Your task to perform on an android device: Open Chrome and go to settings Image 0: 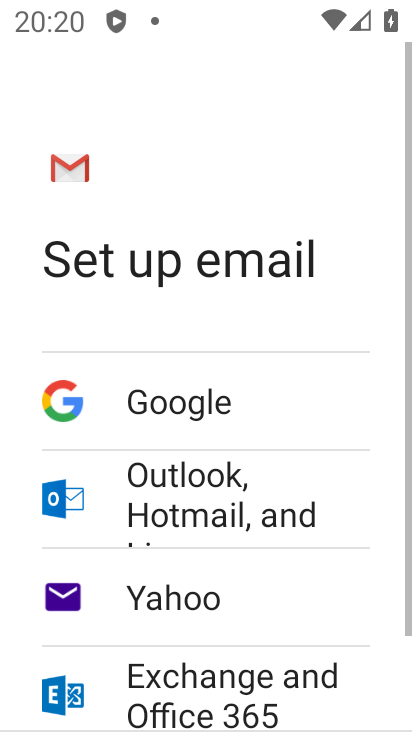
Step 0: press home button
Your task to perform on an android device: Open Chrome and go to settings Image 1: 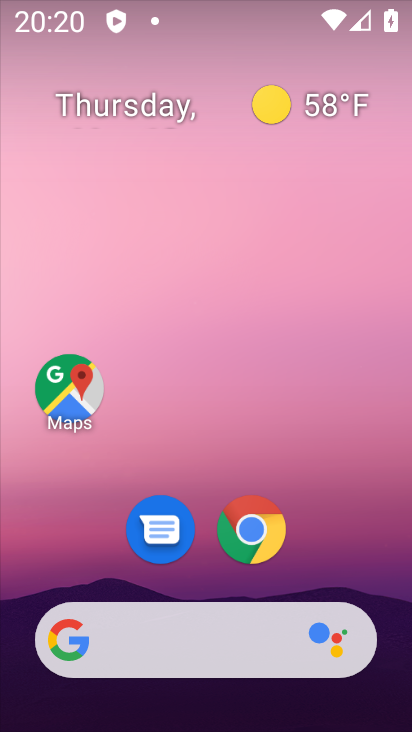
Step 1: click (259, 530)
Your task to perform on an android device: Open Chrome and go to settings Image 2: 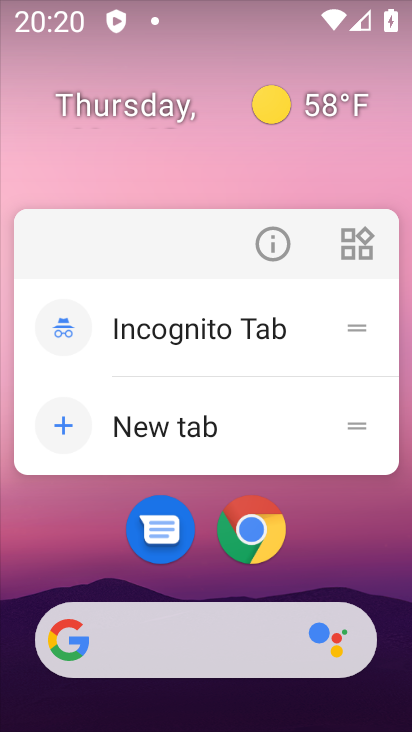
Step 2: click (258, 529)
Your task to perform on an android device: Open Chrome and go to settings Image 3: 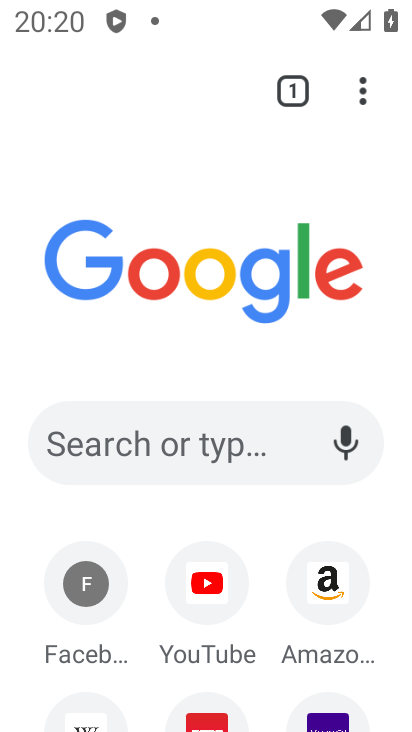
Step 3: click (354, 86)
Your task to perform on an android device: Open Chrome and go to settings Image 4: 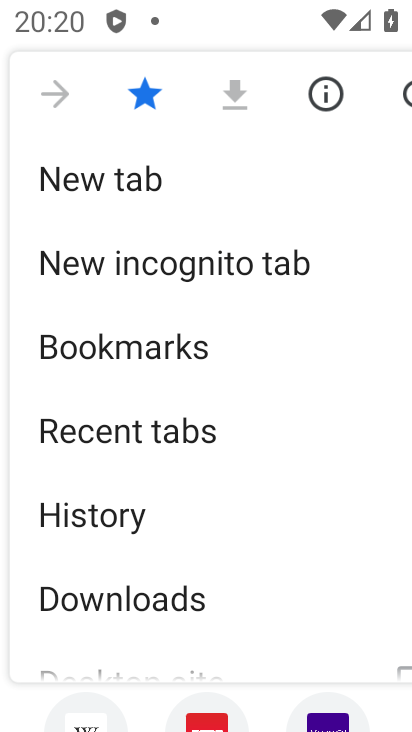
Step 4: drag from (152, 589) to (244, 0)
Your task to perform on an android device: Open Chrome and go to settings Image 5: 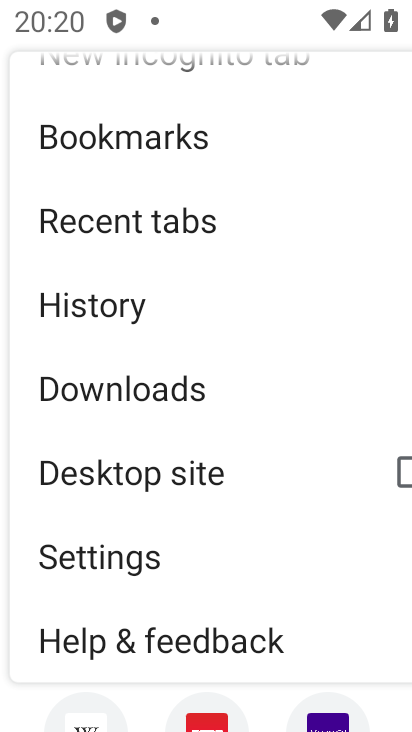
Step 5: click (145, 569)
Your task to perform on an android device: Open Chrome and go to settings Image 6: 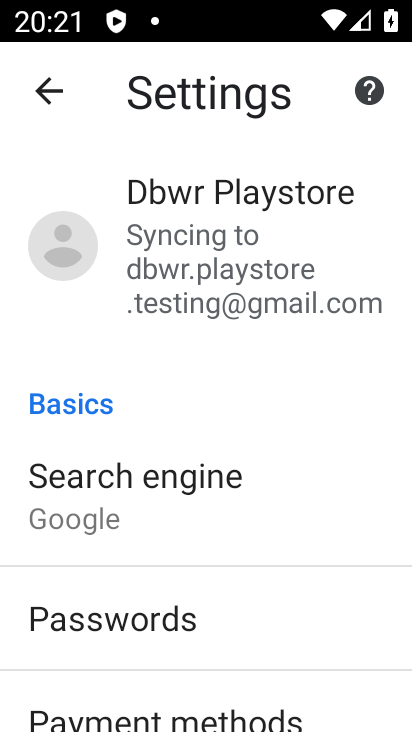
Step 6: task complete